Your task to perform on an android device: Open Yahoo.com Image 0: 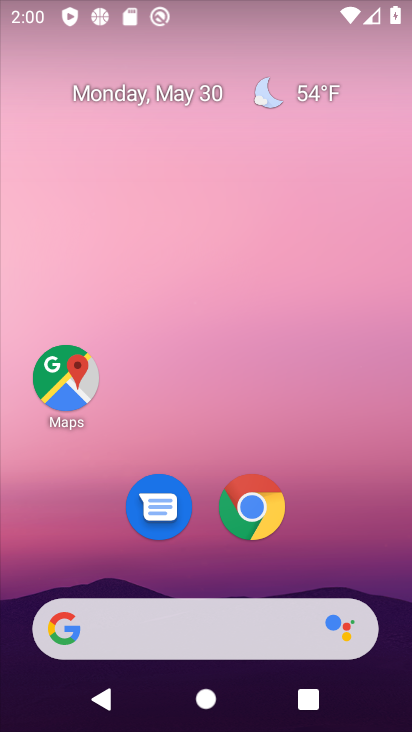
Step 0: drag from (395, 637) to (281, 18)
Your task to perform on an android device: Open Yahoo.com Image 1: 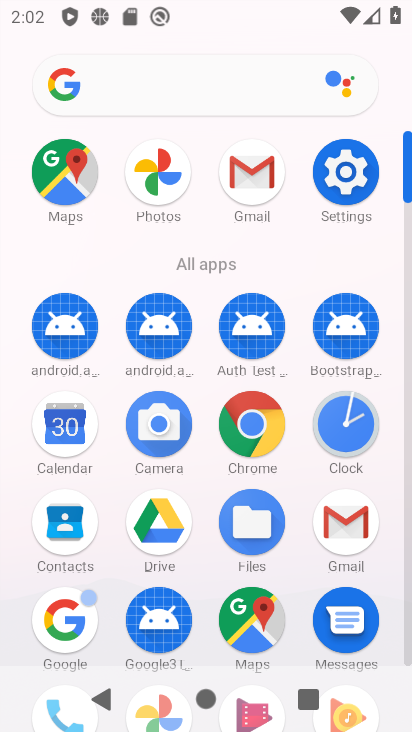
Step 1: click (65, 586)
Your task to perform on an android device: Open Yahoo.com Image 2: 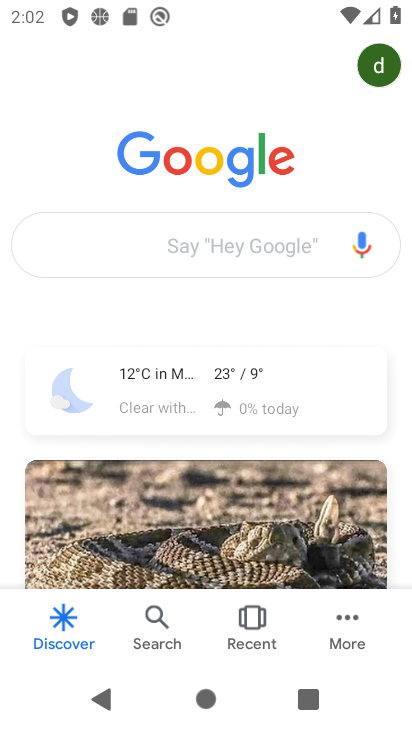
Step 2: click (129, 228)
Your task to perform on an android device: Open Yahoo.com Image 3: 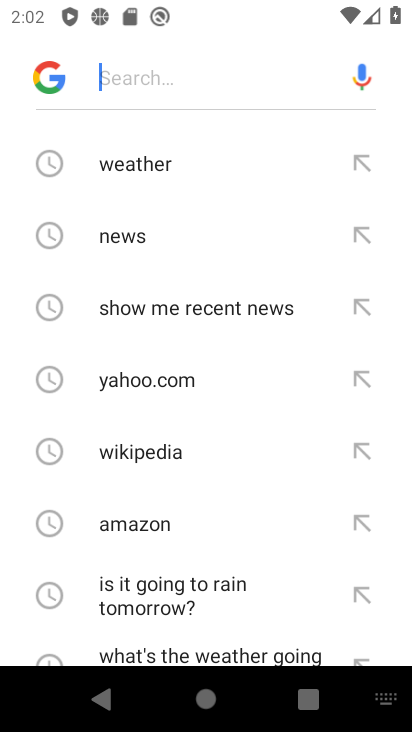
Step 3: drag from (140, 521) to (167, 390)
Your task to perform on an android device: Open Yahoo.com Image 4: 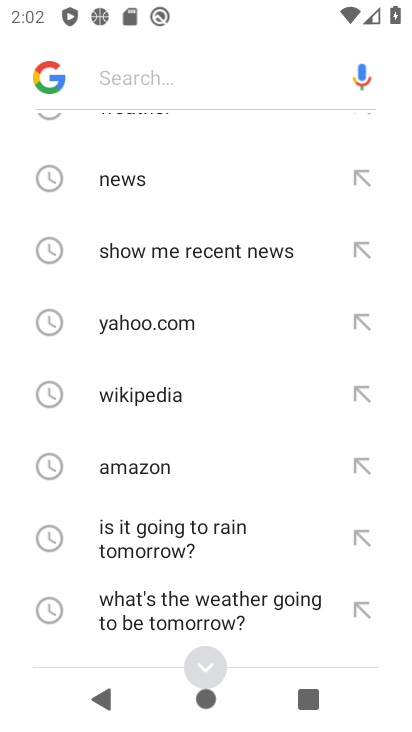
Step 4: click (171, 328)
Your task to perform on an android device: Open Yahoo.com Image 5: 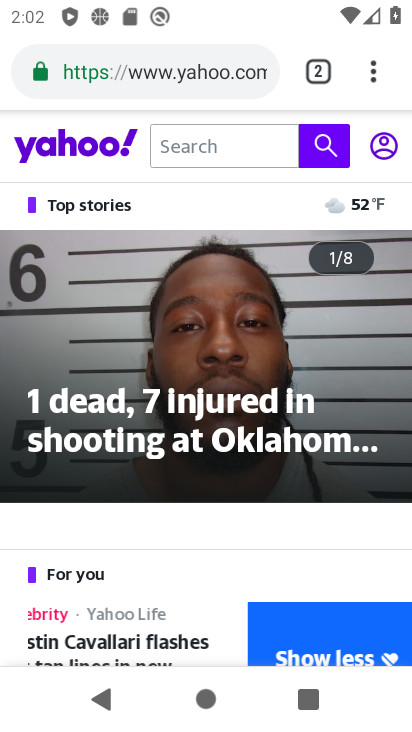
Step 5: task complete